Your task to perform on an android device: turn on javascript in the chrome app Image 0: 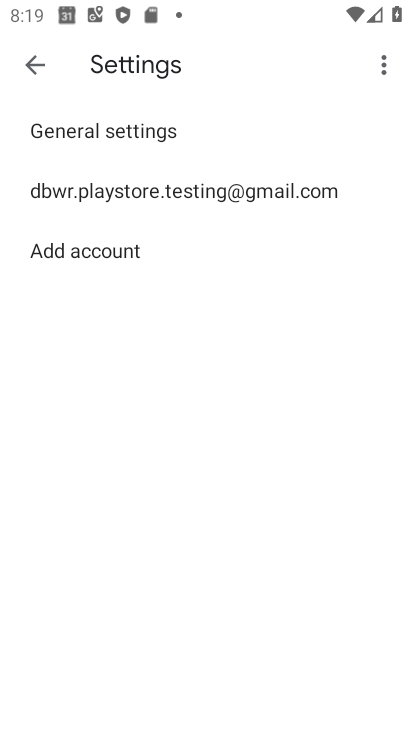
Step 0: press home button
Your task to perform on an android device: turn on javascript in the chrome app Image 1: 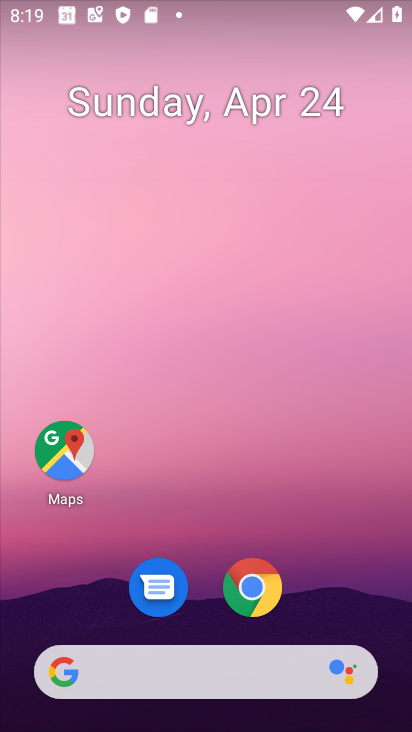
Step 1: drag from (364, 552) to (378, 208)
Your task to perform on an android device: turn on javascript in the chrome app Image 2: 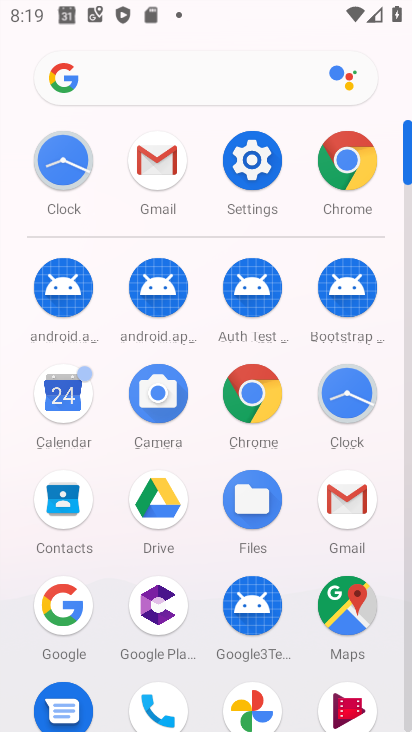
Step 2: click (270, 406)
Your task to perform on an android device: turn on javascript in the chrome app Image 3: 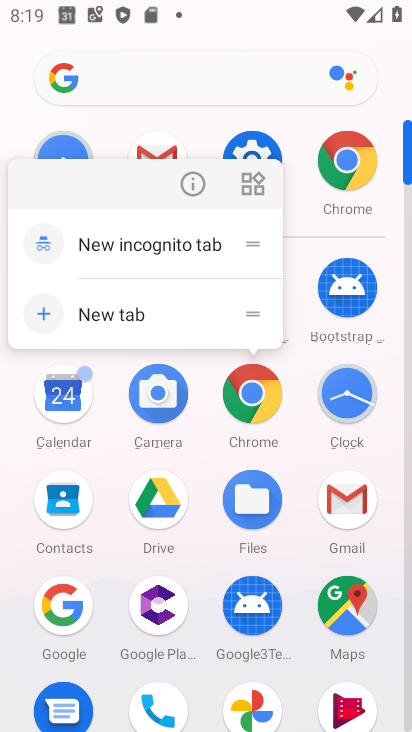
Step 3: click (267, 416)
Your task to perform on an android device: turn on javascript in the chrome app Image 4: 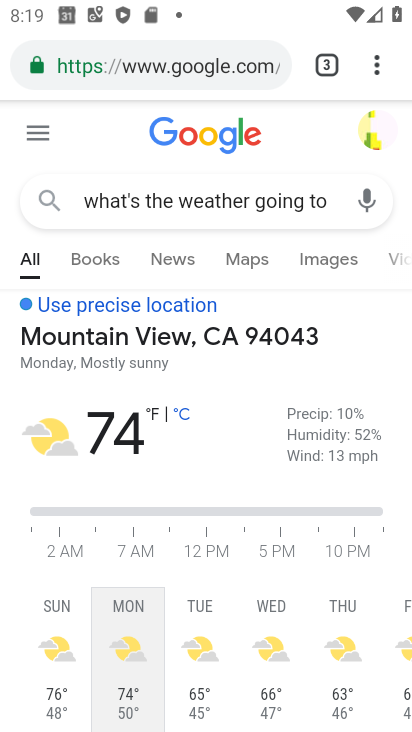
Step 4: drag from (373, 78) to (218, 658)
Your task to perform on an android device: turn on javascript in the chrome app Image 5: 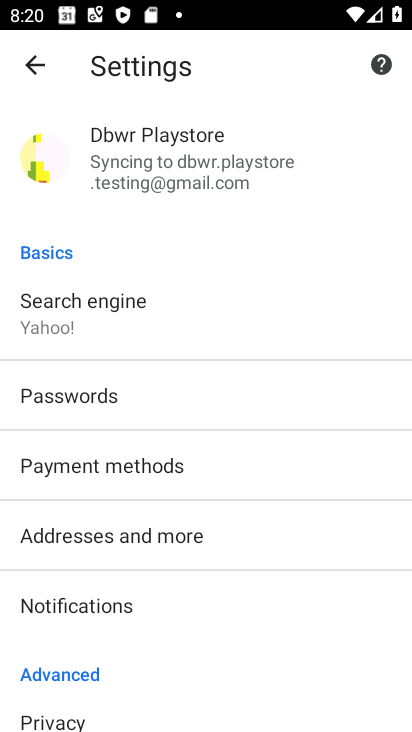
Step 5: drag from (248, 594) to (276, 330)
Your task to perform on an android device: turn on javascript in the chrome app Image 6: 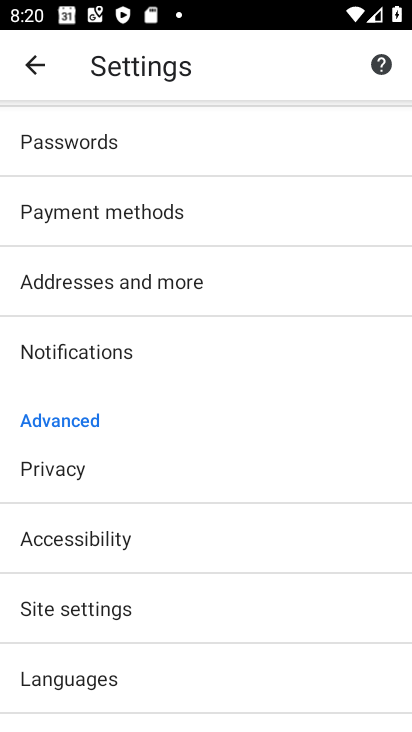
Step 6: click (97, 607)
Your task to perform on an android device: turn on javascript in the chrome app Image 7: 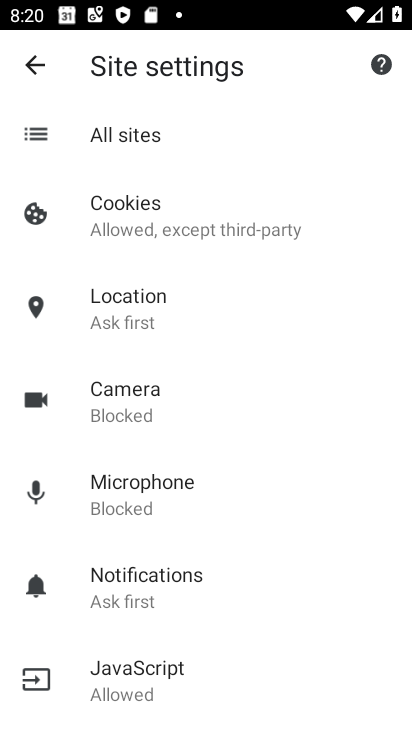
Step 7: drag from (222, 659) to (258, 276)
Your task to perform on an android device: turn on javascript in the chrome app Image 8: 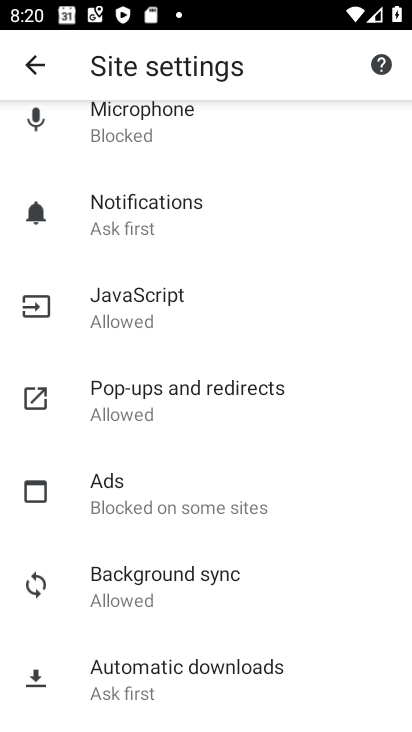
Step 8: click (137, 333)
Your task to perform on an android device: turn on javascript in the chrome app Image 9: 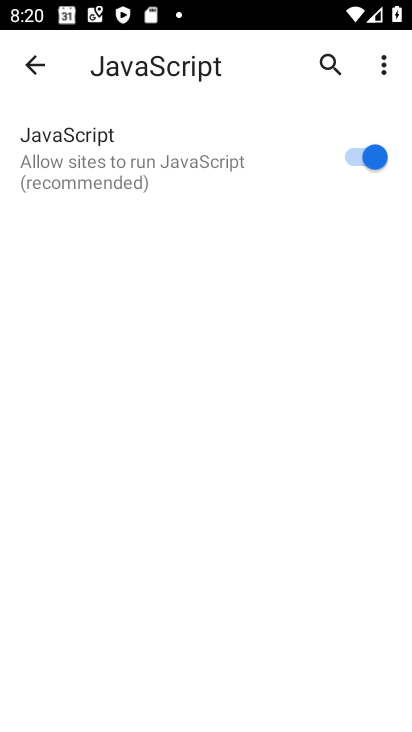
Step 9: task complete